Your task to perform on an android device: open wifi settings Image 0: 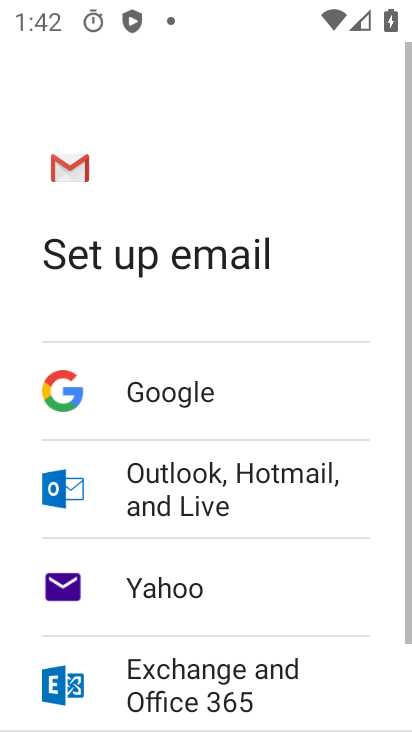
Step 0: press home button
Your task to perform on an android device: open wifi settings Image 1: 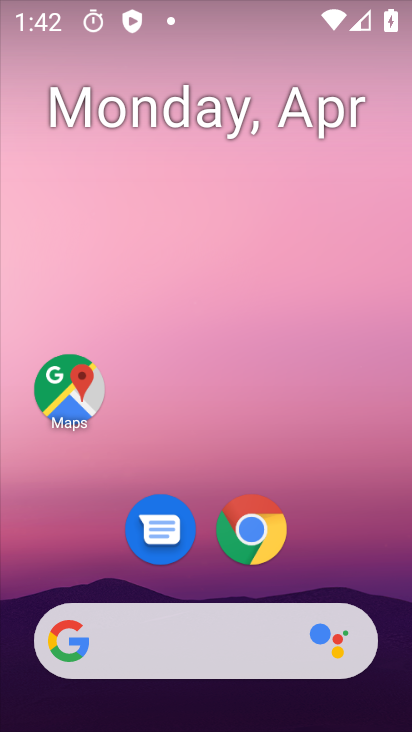
Step 1: drag from (304, 506) to (334, 227)
Your task to perform on an android device: open wifi settings Image 2: 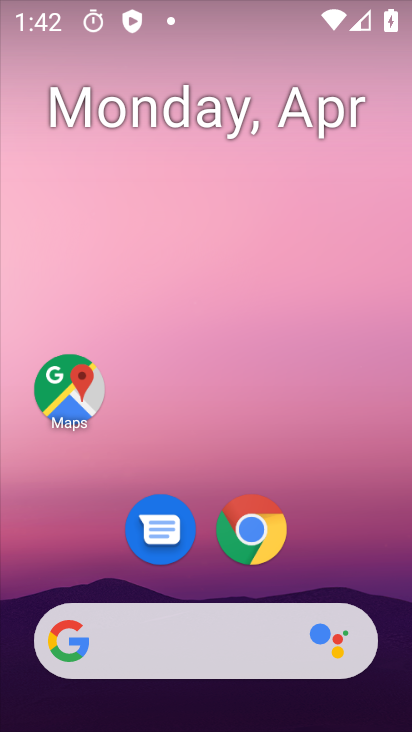
Step 2: drag from (319, 544) to (335, 106)
Your task to perform on an android device: open wifi settings Image 3: 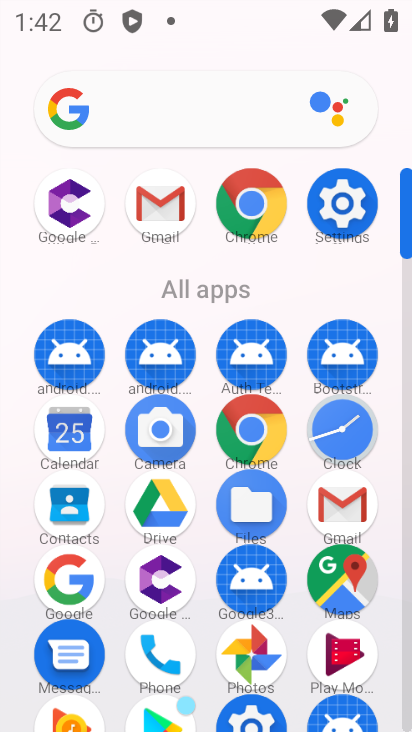
Step 3: click (343, 210)
Your task to perform on an android device: open wifi settings Image 4: 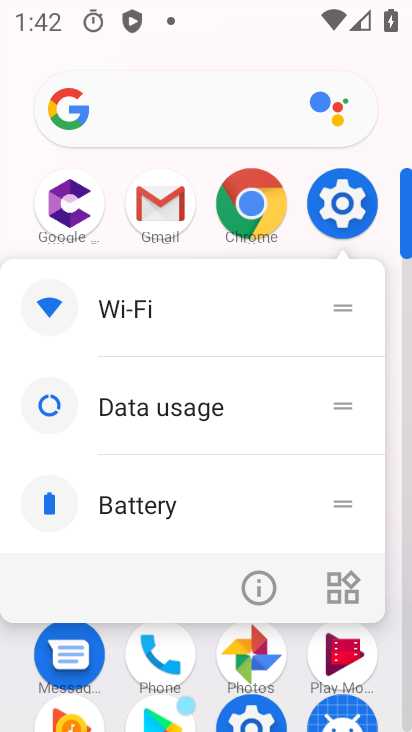
Step 4: click (337, 214)
Your task to perform on an android device: open wifi settings Image 5: 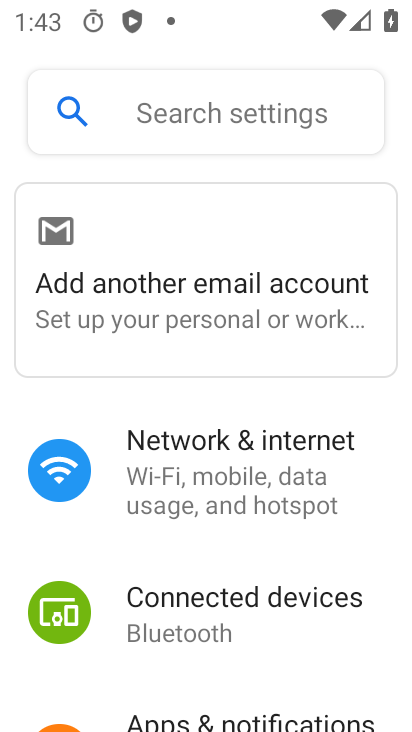
Step 5: click (219, 466)
Your task to perform on an android device: open wifi settings Image 6: 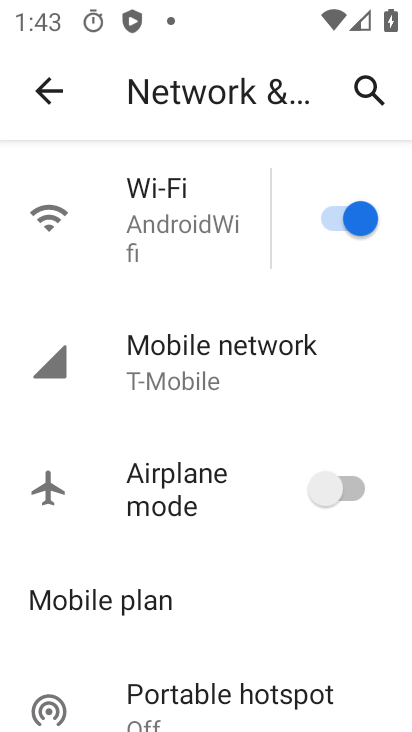
Step 6: task complete